Your task to perform on an android device: install app "DuckDuckGo Privacy Browser" Image 0: 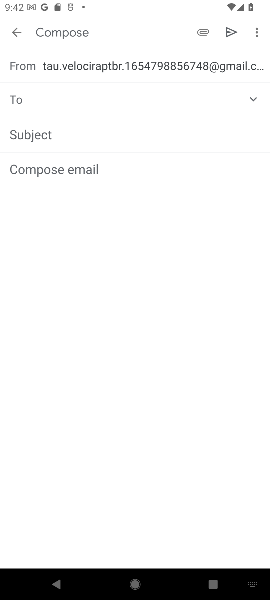
Step 0: press home button
Your task to perform on an android device: install app "DuckDuckGo Privacy Browser" Image 1: 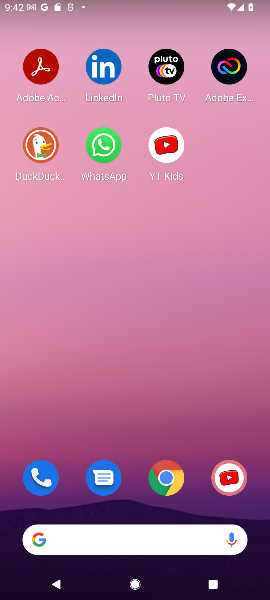
Step 1: click (50, 154)
Your task to perform on an android device: install app "DuckDuckGo Privacy Browser" Image 2: 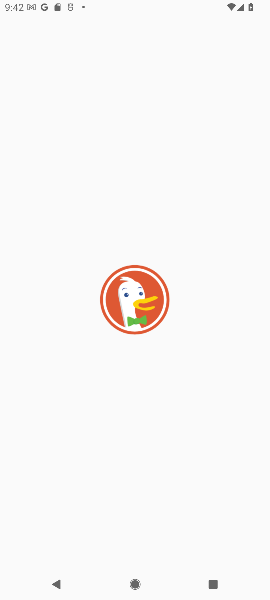
Step 2: task complete